Your task to perform on an android device: Open location settings Image 0: 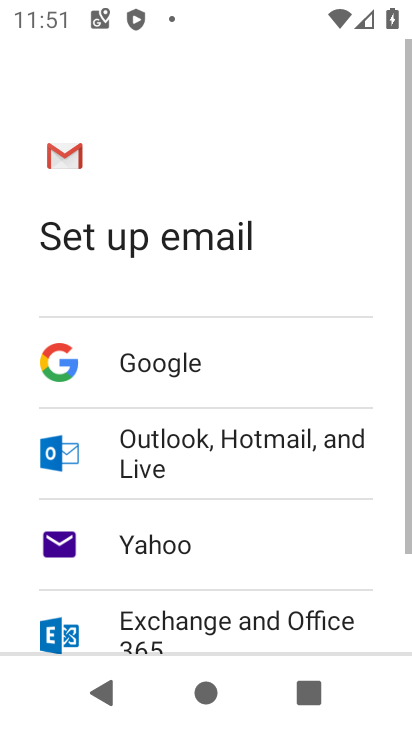
Step 0: press home button
Your task to perform on an android device: Open location settings Image 1: 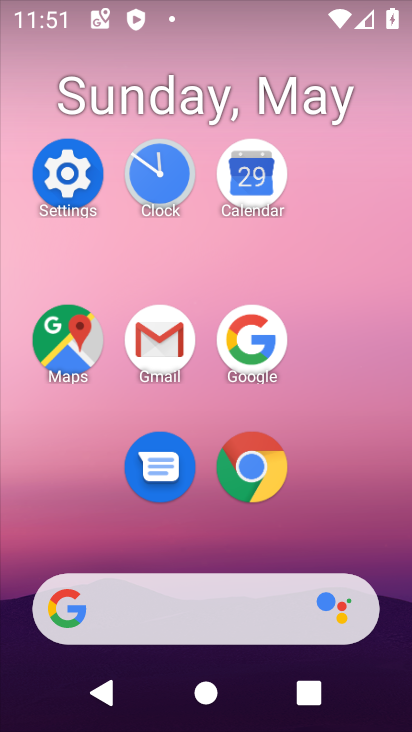
Step 1: click (89, 183)
Your task to perform on an android device: Open location settings Image 2: 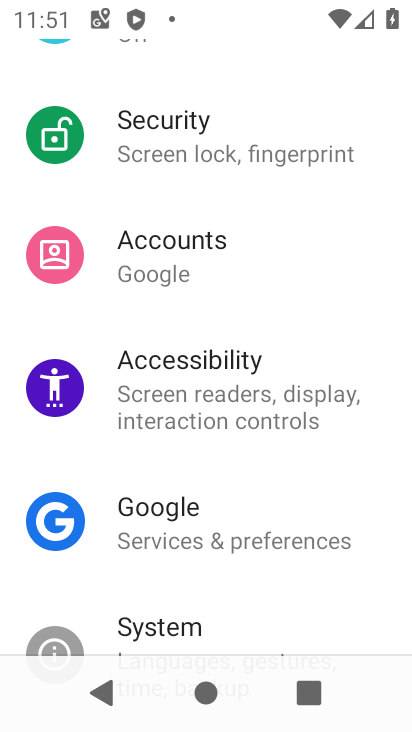
Step 2: drag from (272, 191) to (304, 597)
Your task to perform on an android device: Open location settings Image 3: 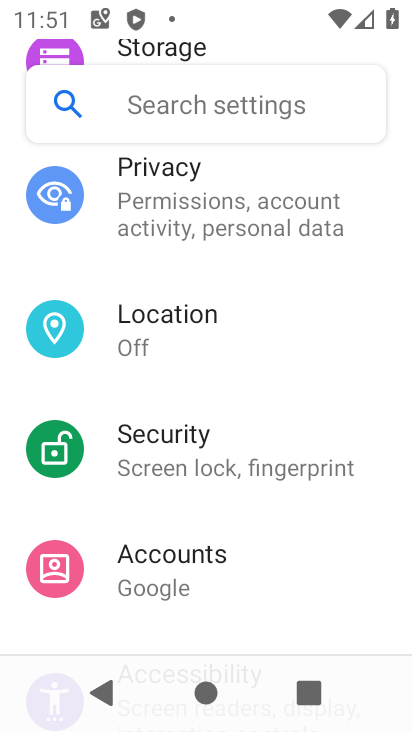
Step 3: drag from (344, 179) to (366, 584)
Your task to perform on an android device: Open location settings Image 4: 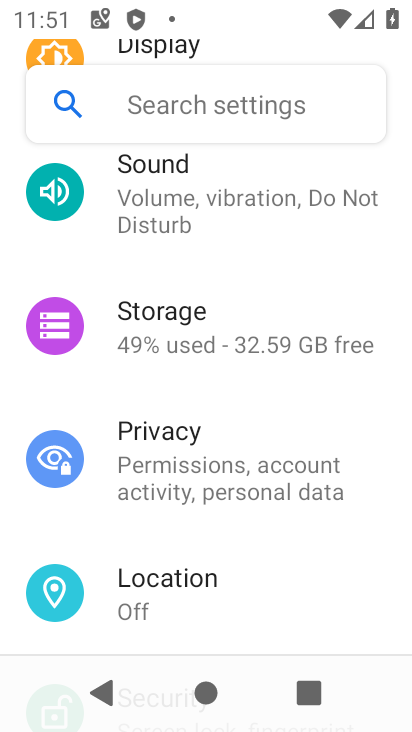
Step 4: click (192, 586)
Your task to perform on an android device: Open location settings Image 5: 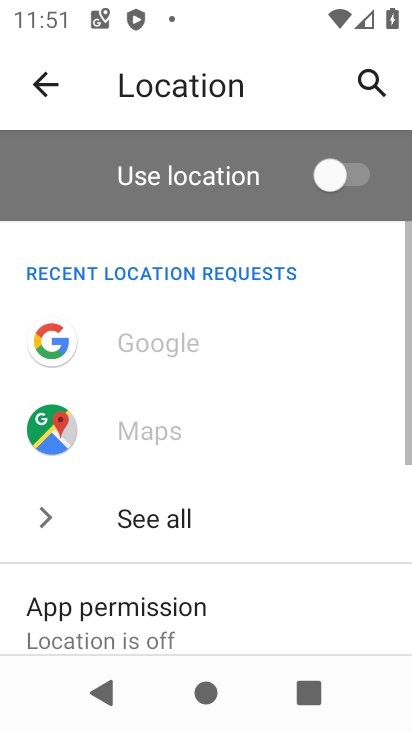
Step 5: task complete